Your task to perform on an android device: star an email in the gmail app Image 0: 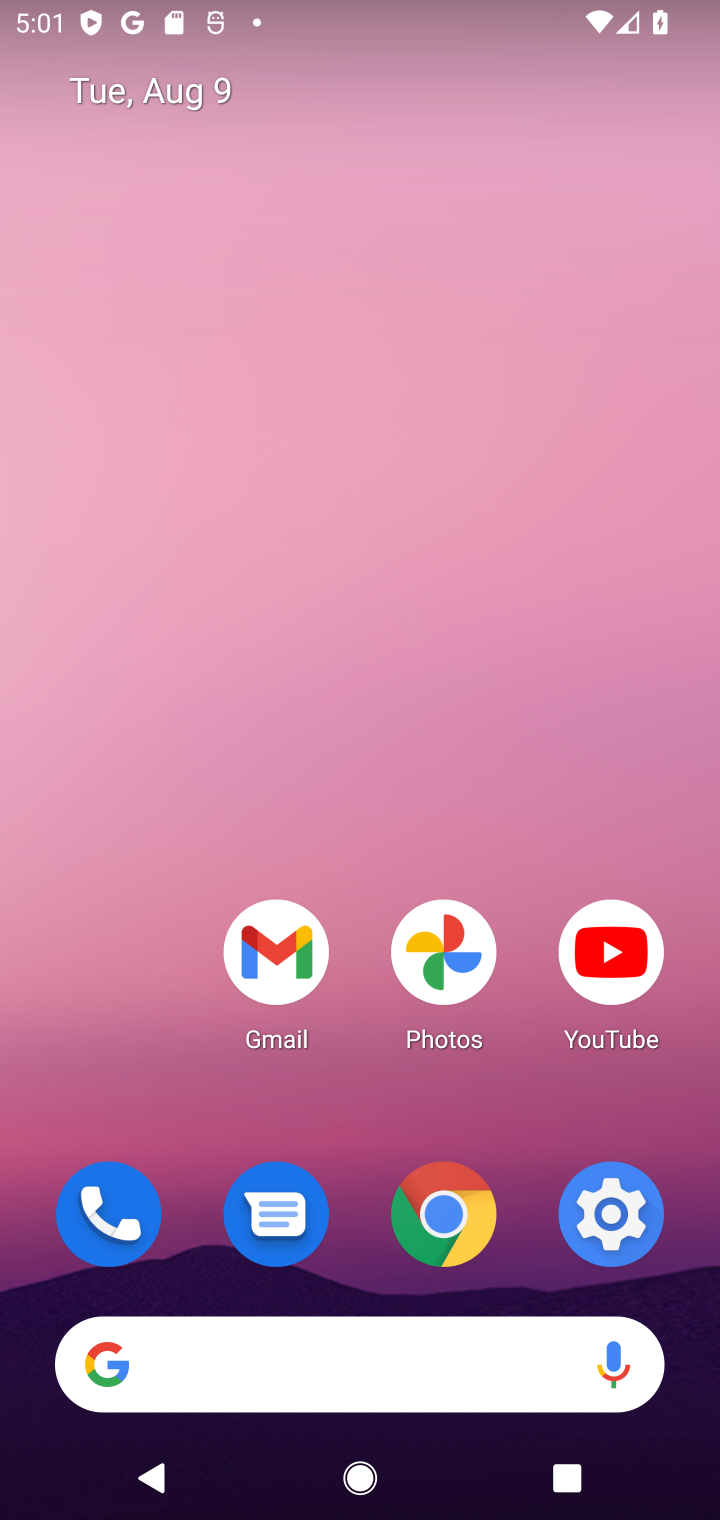
Step 0: drag from (528, 1395) to (447, 495)
Your task to perform on an android device: star an email in the gmail app Image 1: 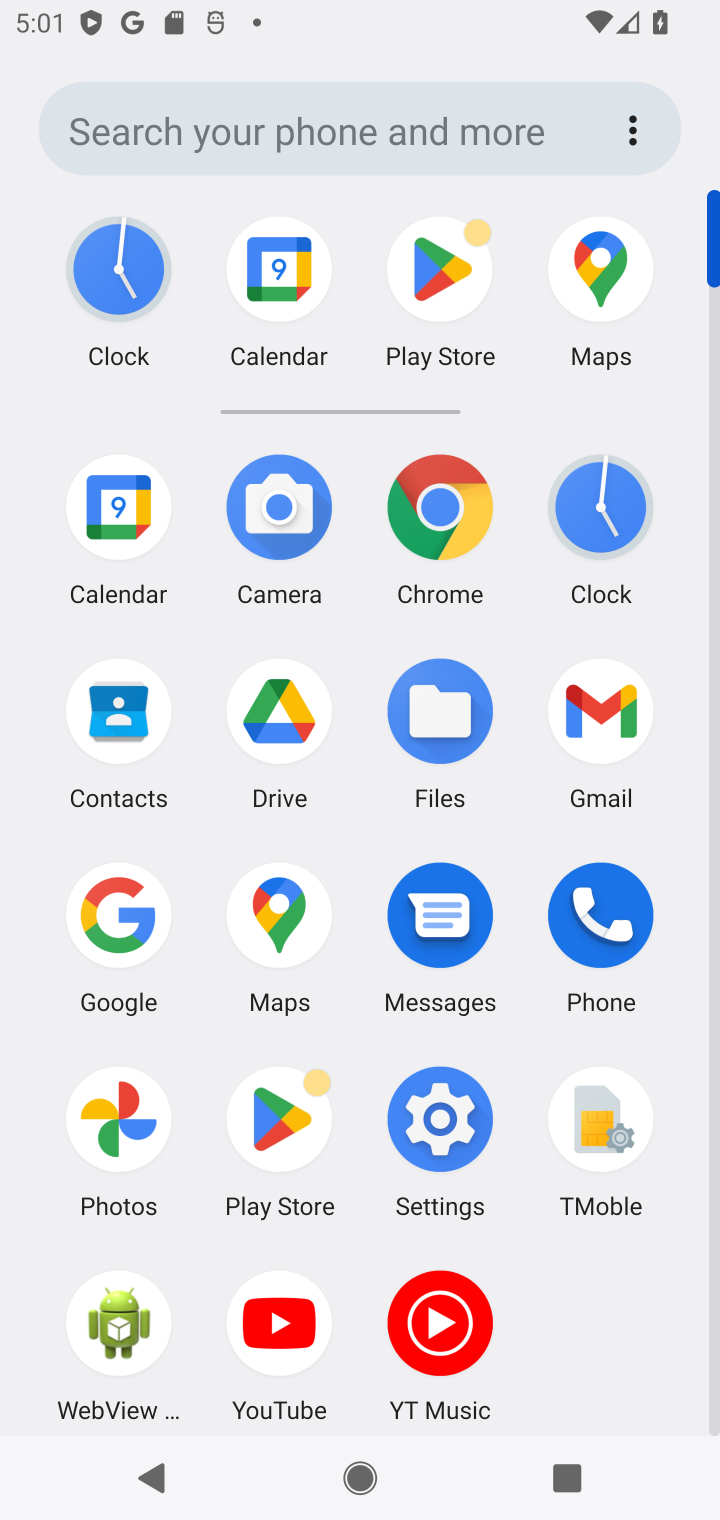
Step 1: click (584, 703)
Your task to perform on an android device: star an email in the gmail app Image 2: 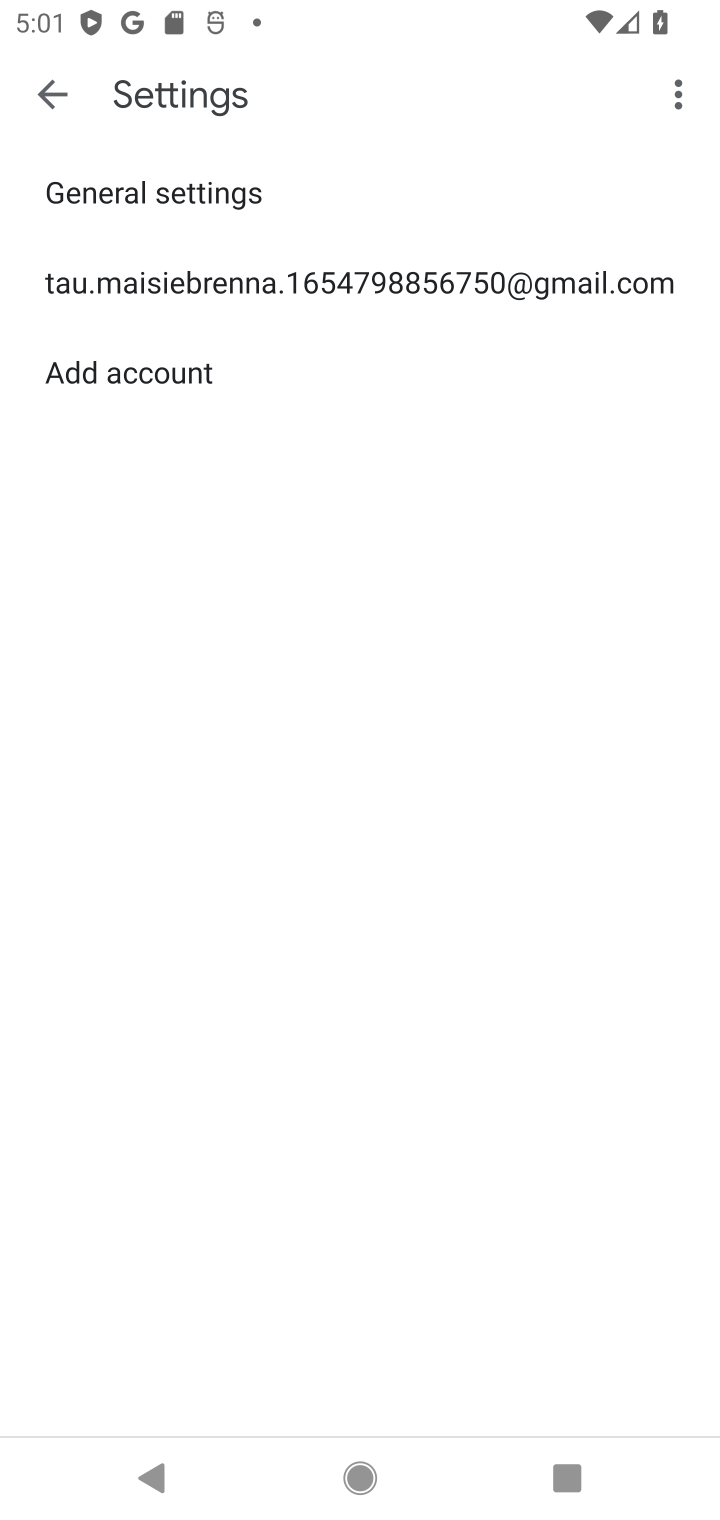
Step 2: click (161, 262)
Your task to perform on an android device: star an email in the gmail app Image 3: 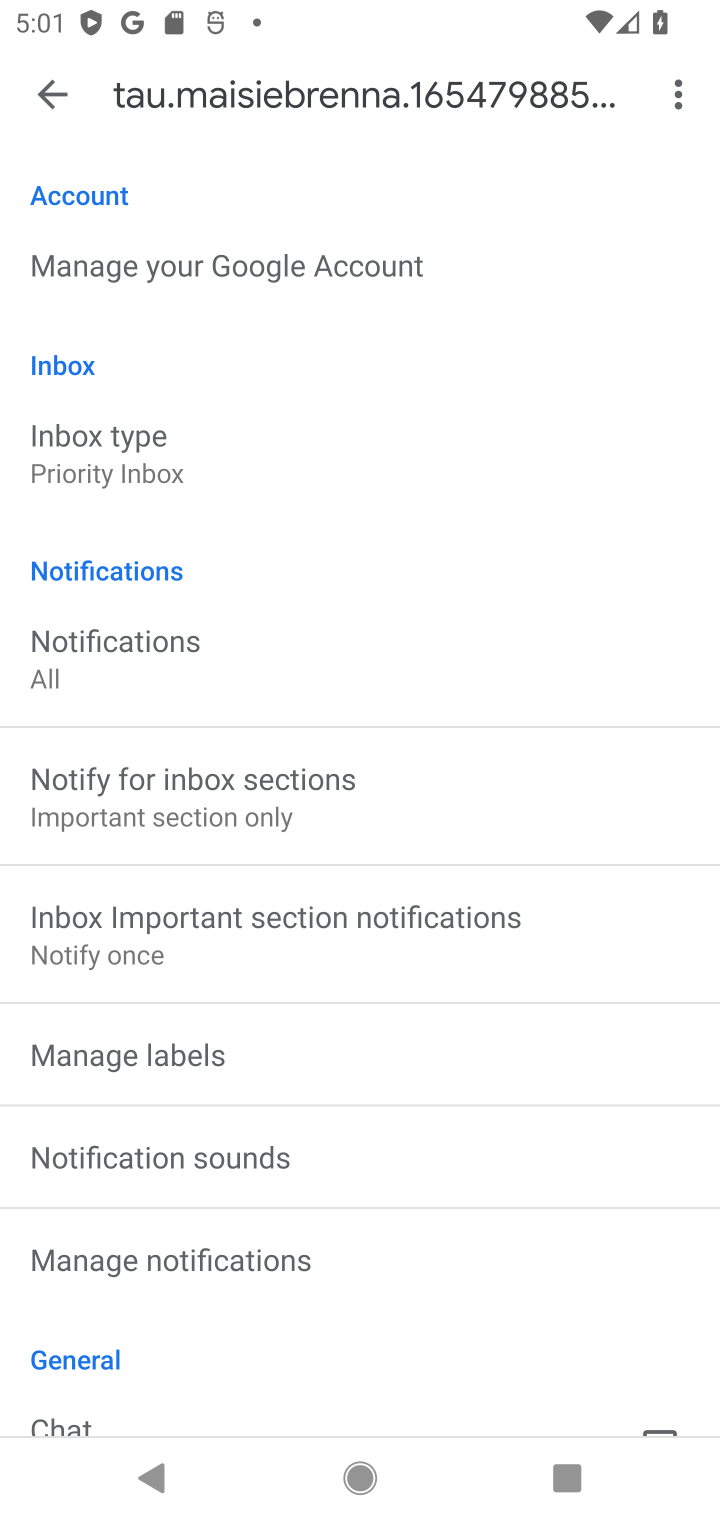
Step 3: click (36, 102)
Your task to perform on an android device: star an email in the gmail app Image 4: 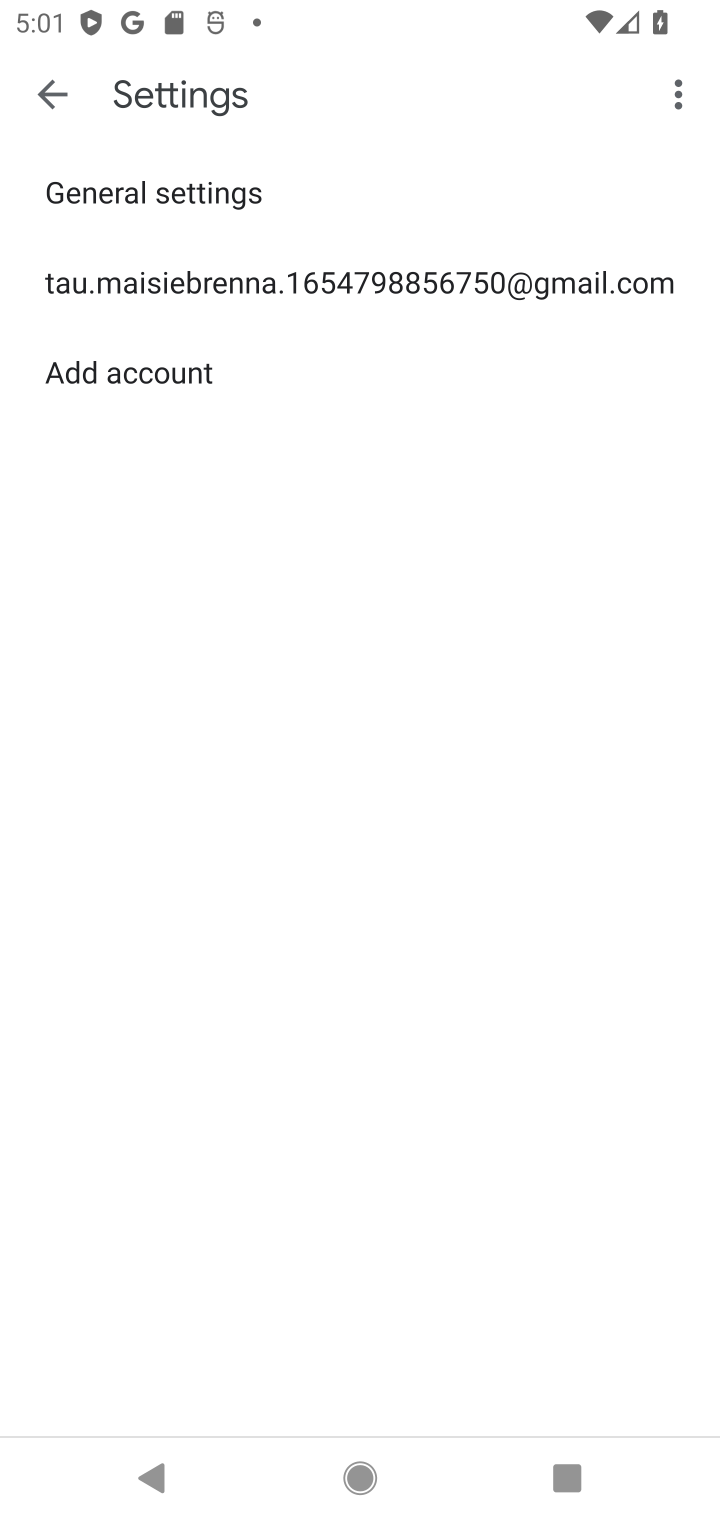
Step 4: click (53, 98)
Your task to perform on an android device: star an email in the gmail app Image 5: 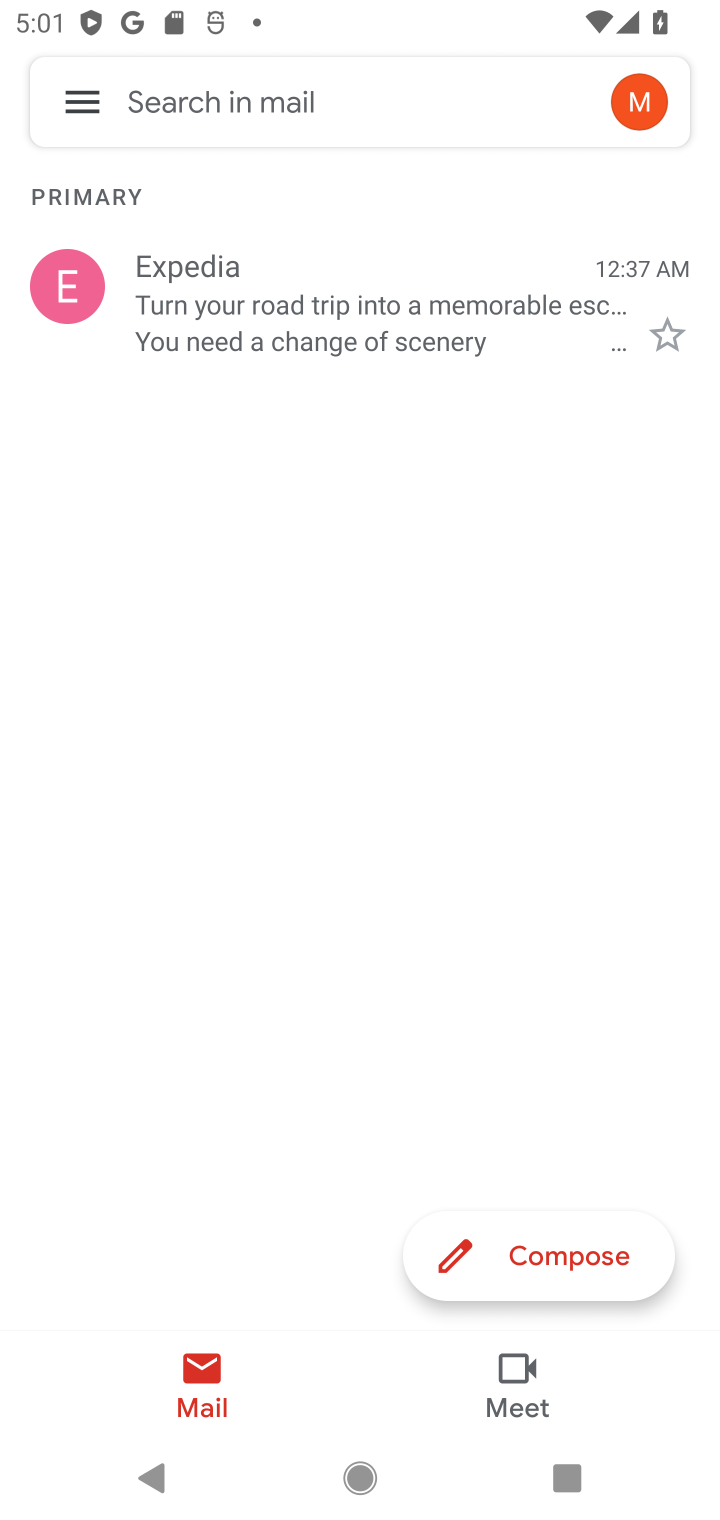
Step 5: click (70, 99)
Your task to perform on an android device: star an email in the gmail app Image 6: 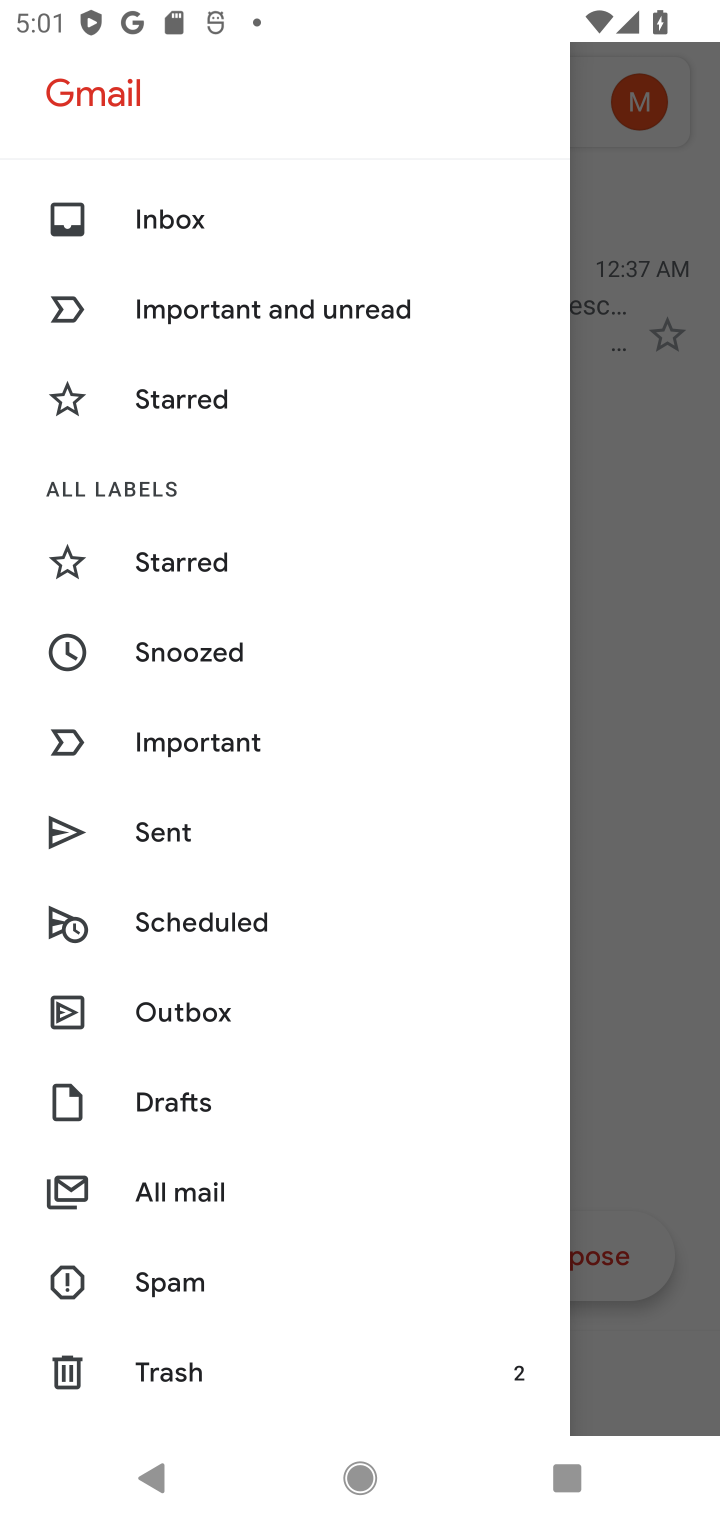
Step 6: click (150, 391)
Your task to perform on an android device: star an email in the gmail app Image 7: 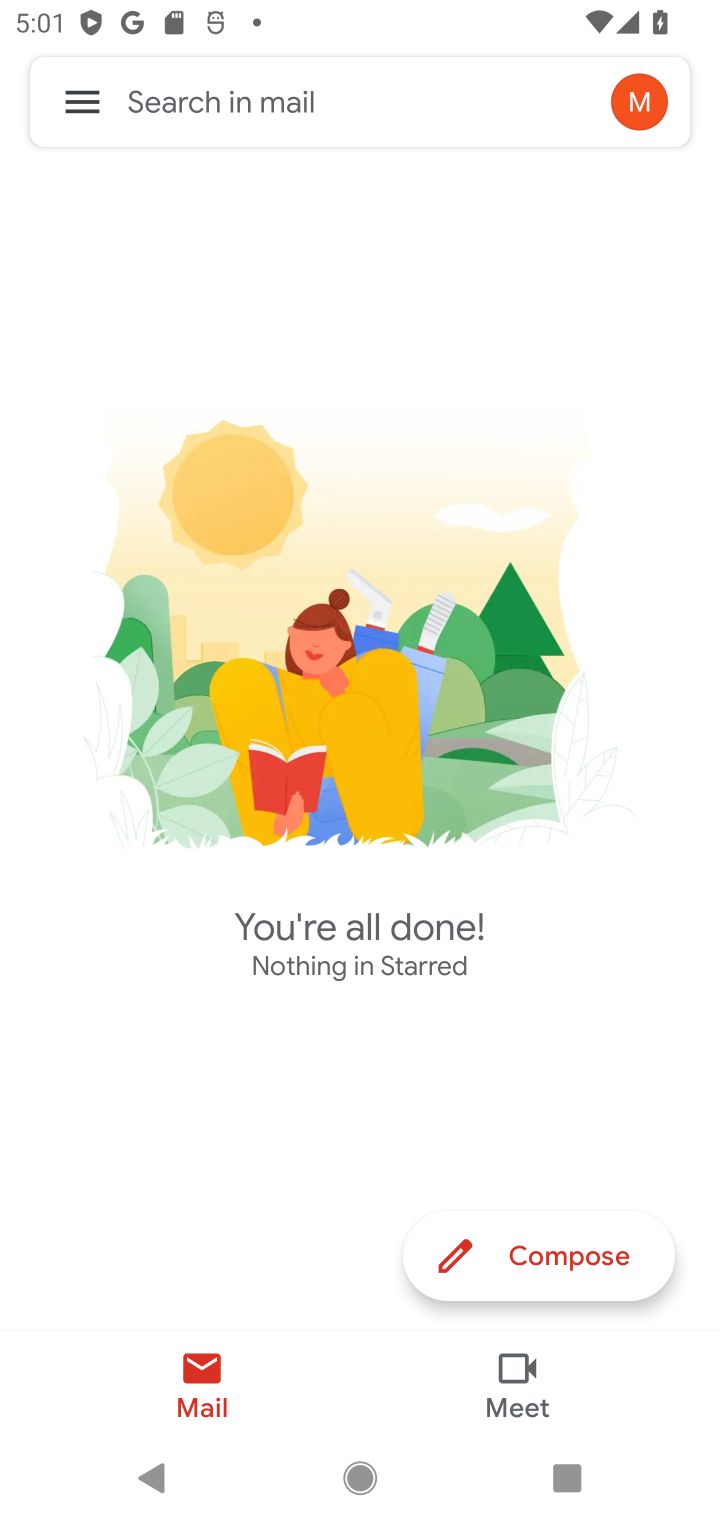
Step 7: task complete